Your task to perform on an android device: empty trash in google photos Image 0: 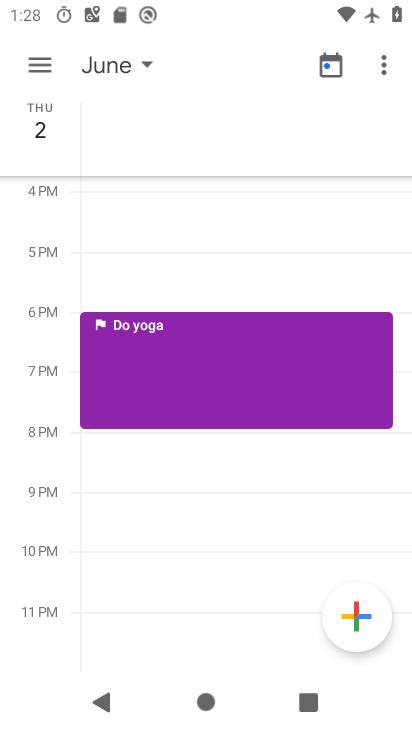
Step 0: press home button
Your task to perform on an android device: empty trash in google photos Image 1: 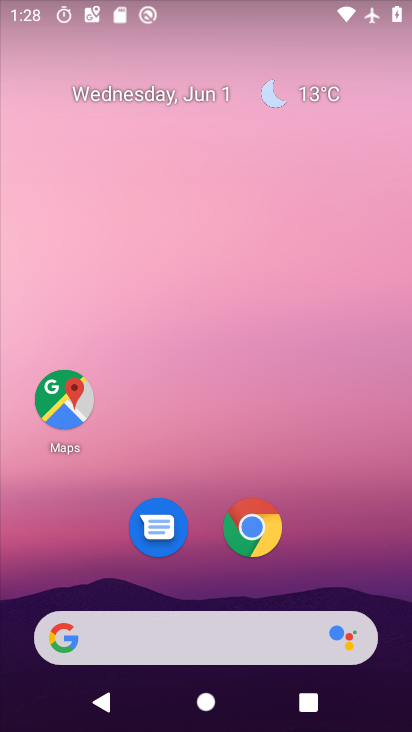
Step 1: drag from (350, 604) to (388, 2)
Your task to perform on an android device: empty trash in google photos Image 2: 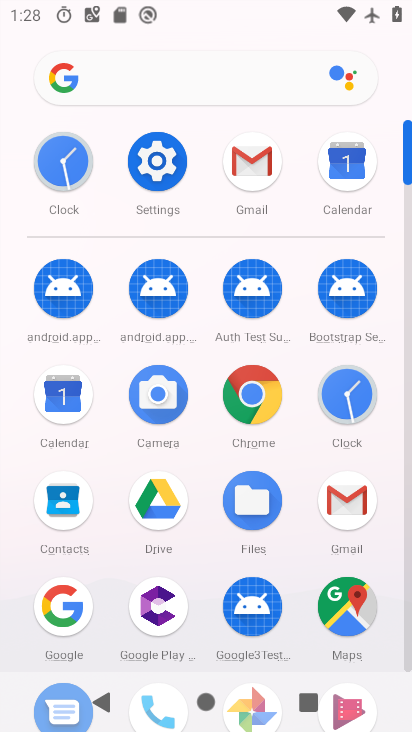
Step 2: click (405, 549)
Your task to perform on an android device: empty trash in google photos Image 3: 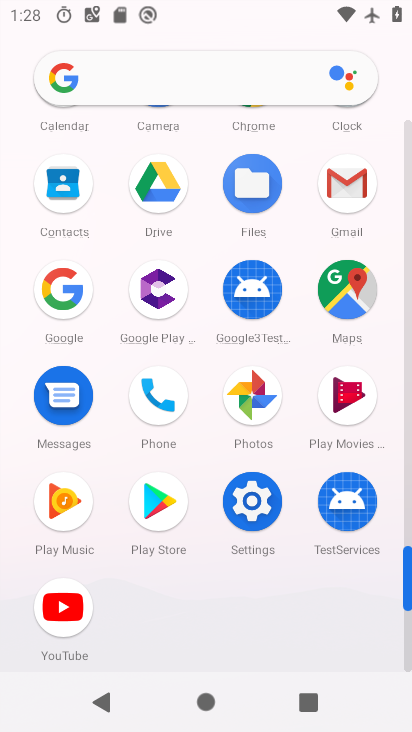
Step 3: click (255, 406)
Your task to perform on an android device: empty trash in google photos Image 4: 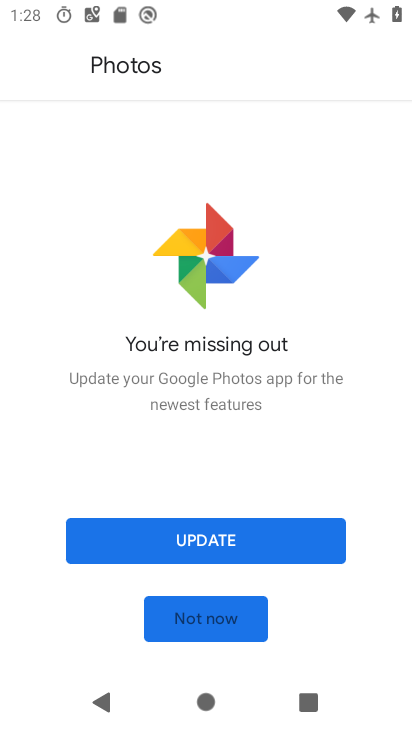
Step 4: click (248, 617)
Your task to perform on an android device: empty trash in google photos Image 5: 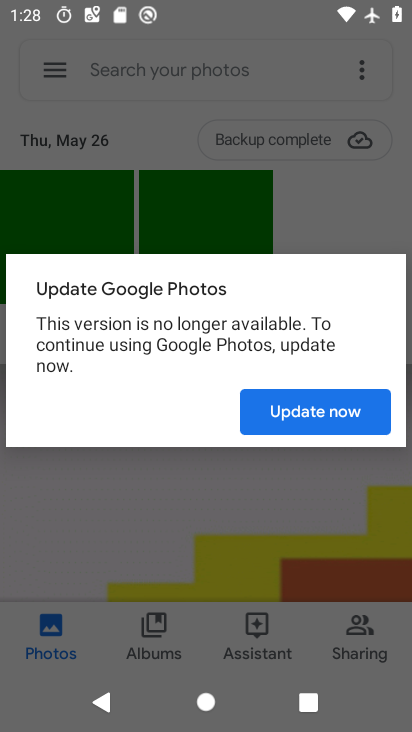
Step 5: click (285, 408)
Your task to perform on an android device: empty trash in google photos Image 6: 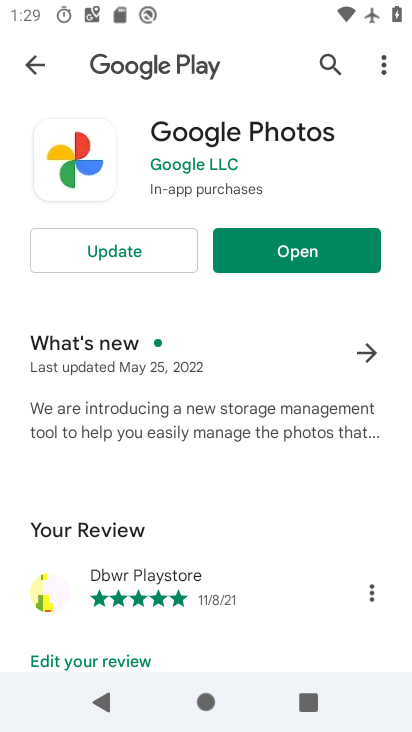
Step 6: click (281, 262)
Your task to perform on an android device: empty trash in google photos Image 7: 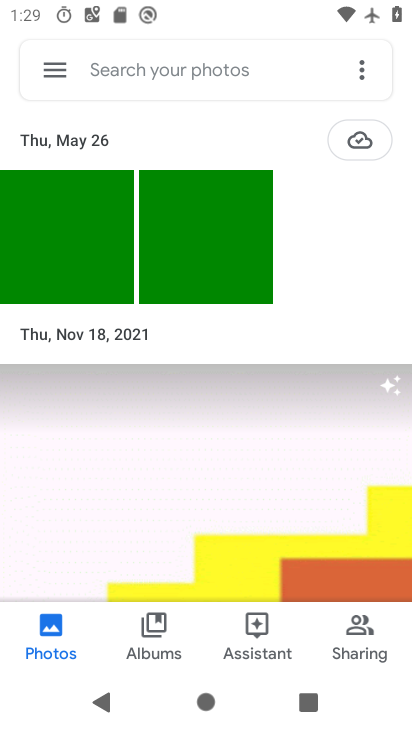
Step 7: click (49, 68)
Your task to perform on an android device: empty trash in google photos Image 8: 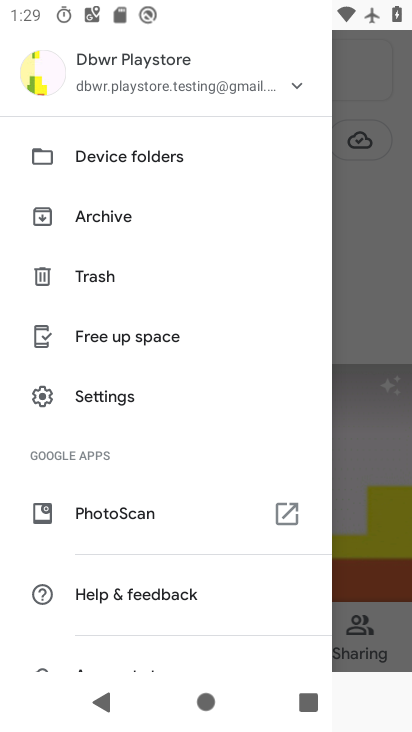
Step 8: click (83, 281)
Your task to perform on an android device: empty trash in google photos Image 9: 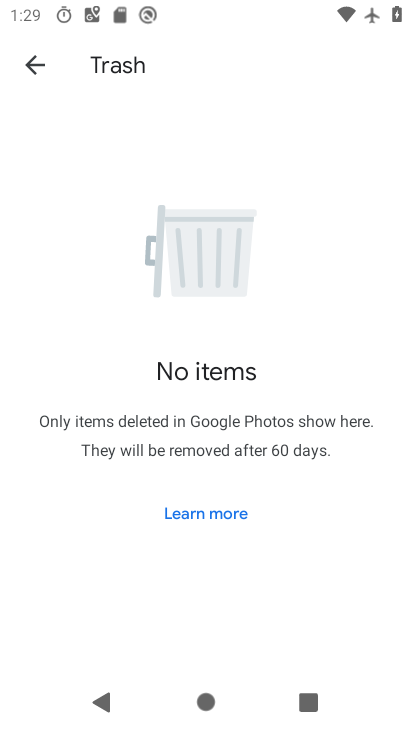
Step 9: task complete